Your task to perform on an android device: Open calendar and show me the third week of next month Image 0: 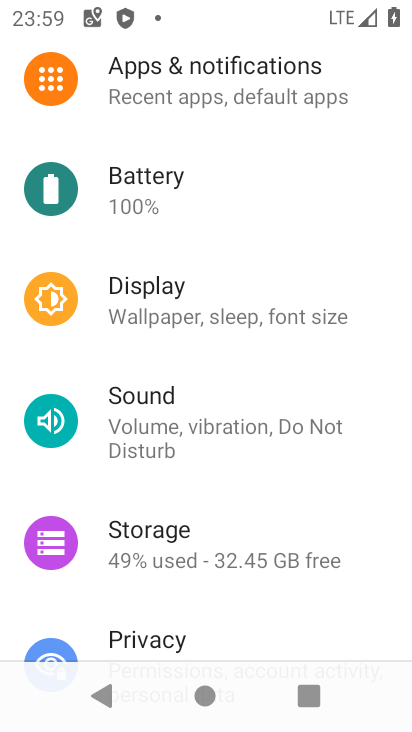
Step 0: press home button
Your task to perform on an android device: Open calendar and show me the third week of next month Image 1: 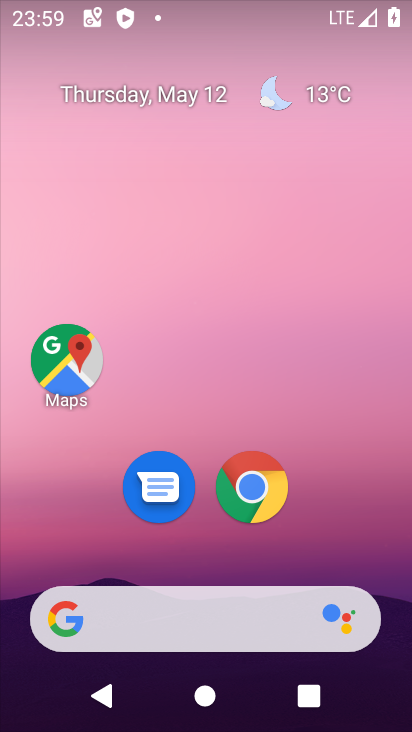
Step 1: click (152, 107)
Your task to perform on an android device: Open calendar and show me the third week of next month Image 2: 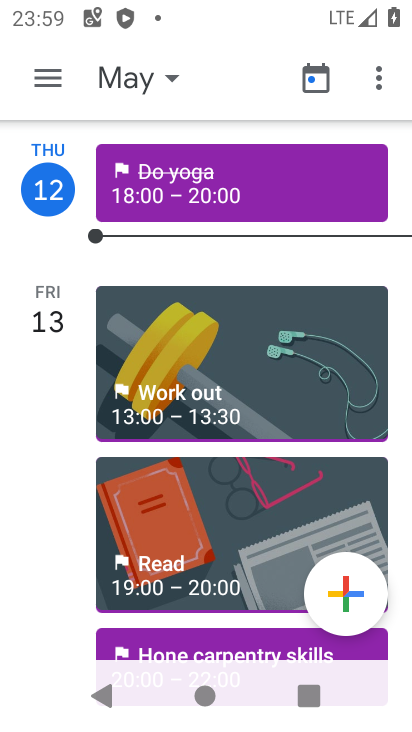
Step 2: click (166, 91)
Your task to perform on an android device: Open calendar and show me the third week of next month Image 3: 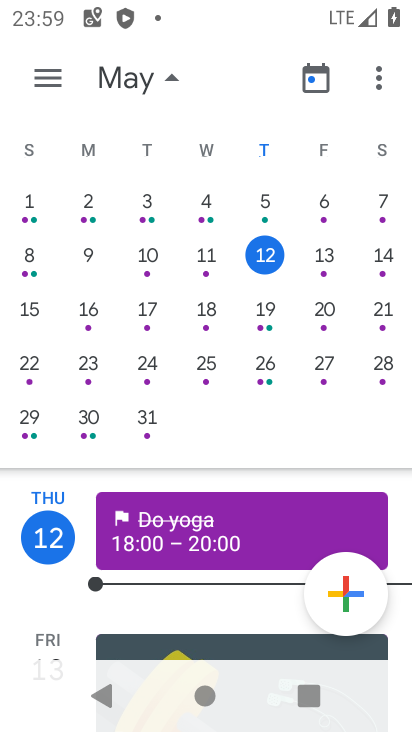
Step 3: drag from (379, 385) to (51, 395)
Your task to perform on an android device: Open calendar and show me the third week of next month Image 4: 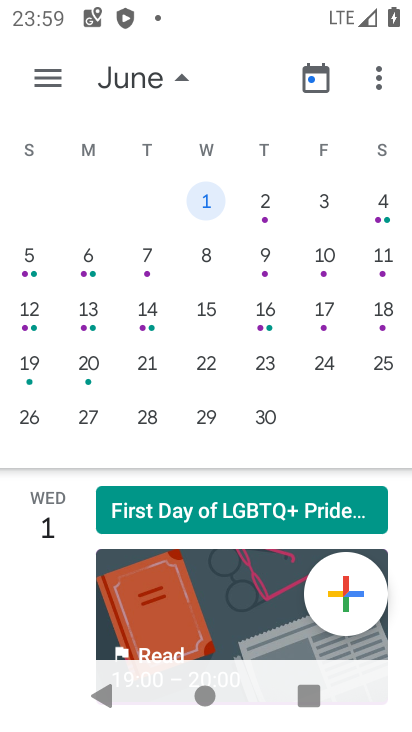
Step 4: click (285, 299)
Your task to perform on an android device: Open calendar and show me the third week of next month Image 5: 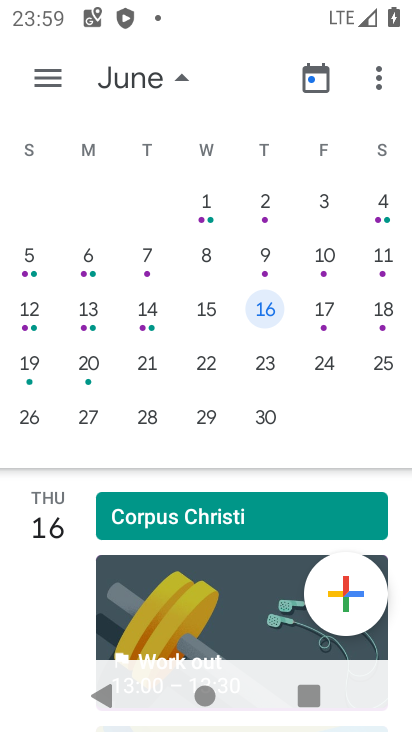
Step 5: task complete